Your task to perform on an android device: Open Android settings Image 0: 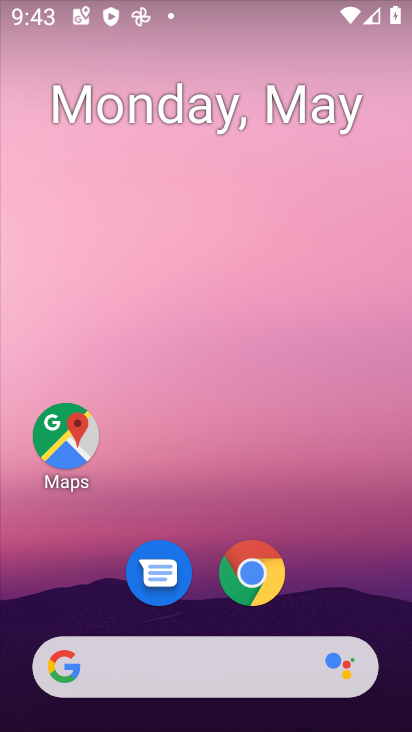
Step 0: drag from (365, 592) to (309, 54)
Your task to perform on an android device: Open Android settings Image 1: 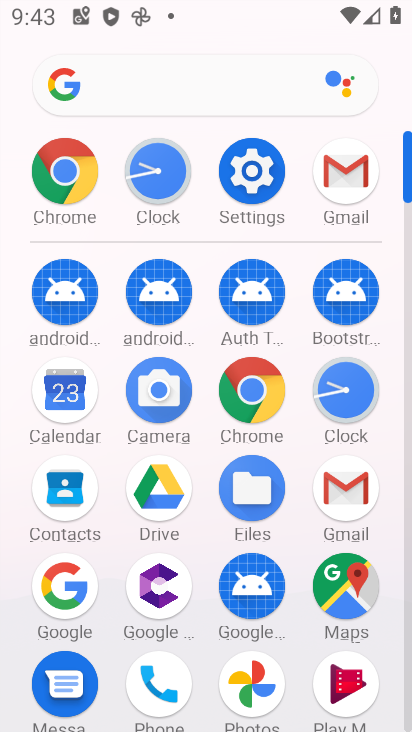
Step 1: click (247, 173)
Your task to perform on an android device: Open Android settings Image 2: 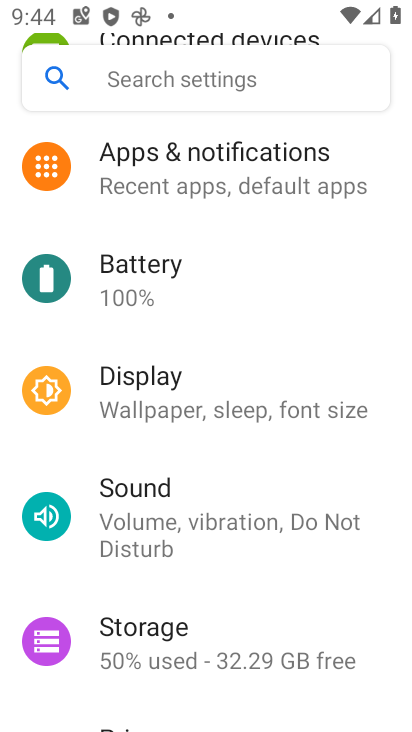
Step 2: task complete